Your task to perform on an android device: Add dell alienware to the cart on walmart, then select checkout. Image 0: 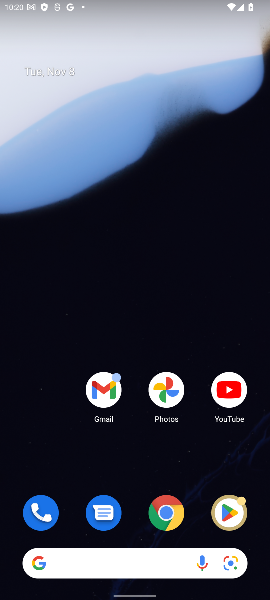
Step 0: task complete